Your task to perform on an android device: install app "Chime – Mobile Banking" Image 0: 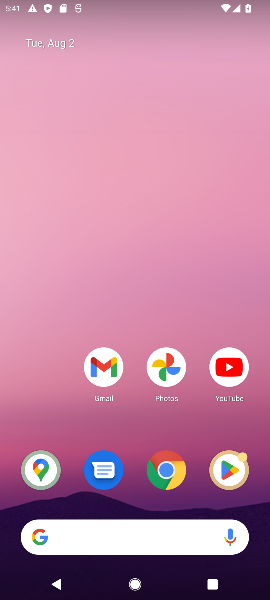
Step 0: click (234, 469)
Your task to perform on an android device: install app "Chime – Mobile Banking" Image 1: 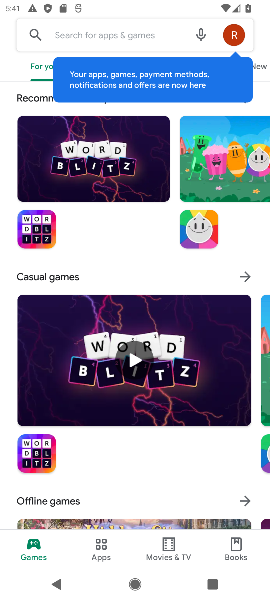
Step 1: click (87, 32)
Your task to perform on an android device: install app "Chime – Mobile Banking" Image 2: 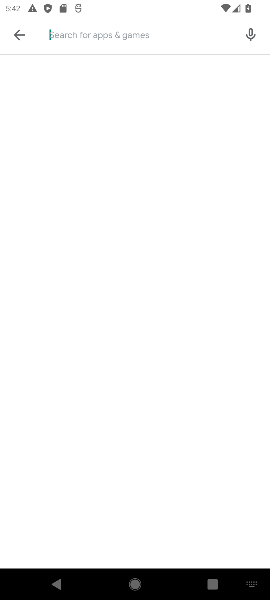
Step 2: type "chime"
Your task to perform on an android device: install app "Chime – Mobile Banking" Image 3: 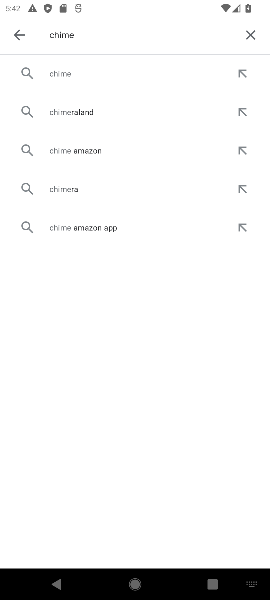
Step 3: click (87, 71)
Your task to perform on an android device: install app "Chime – Mobile Banking" Image 4: 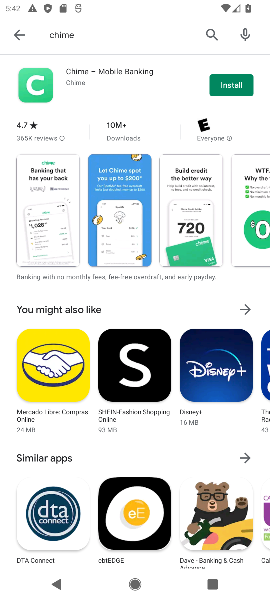
Step 4: click (244, 81)
Your task to perform on an android device: install app "Chime – Mobile Banking" Image 5: 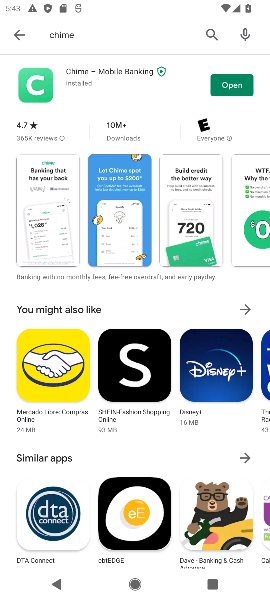
Step 5: task complete